Your task to perform on an android device: move a message to another label in the gmail app Image 0: 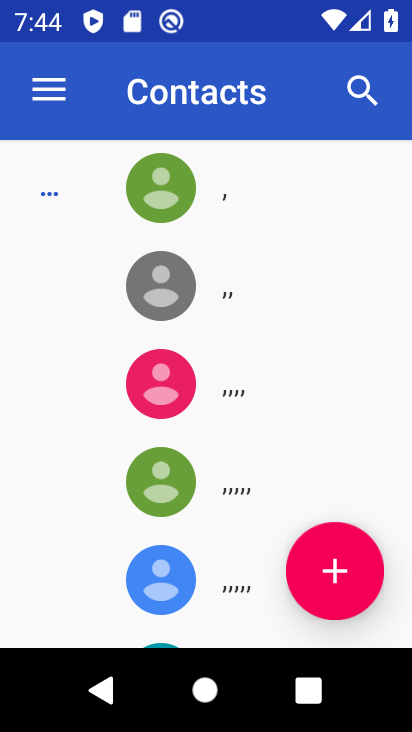
Step 0: press home button
Your task to perform on an android device: move a message to another label in the gmail app Image 1: 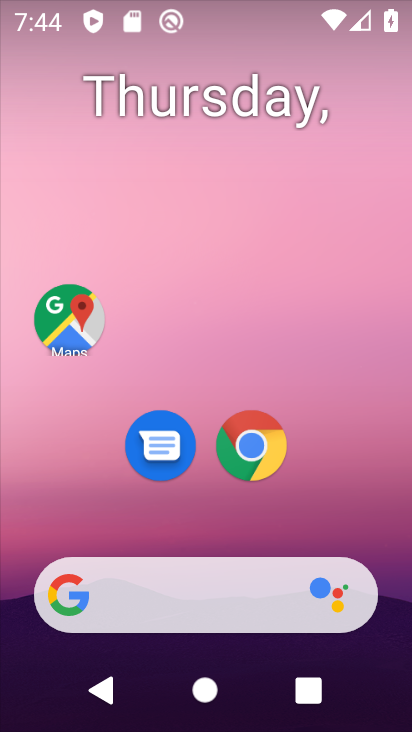
Step 1: drag from (335, 547) to (328, 3)
Your task to perform on an android device: move a message to another label in the gmail app Image 2: 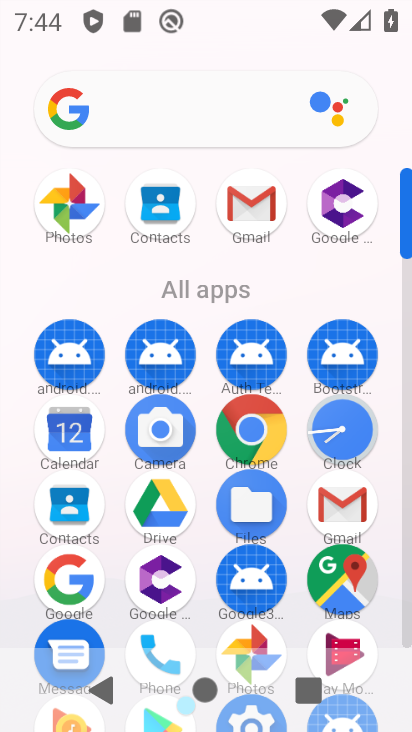
Step 2: click (249, 210)
Your task to perform on an android device: move a message to another label in the gmail app Image 3: 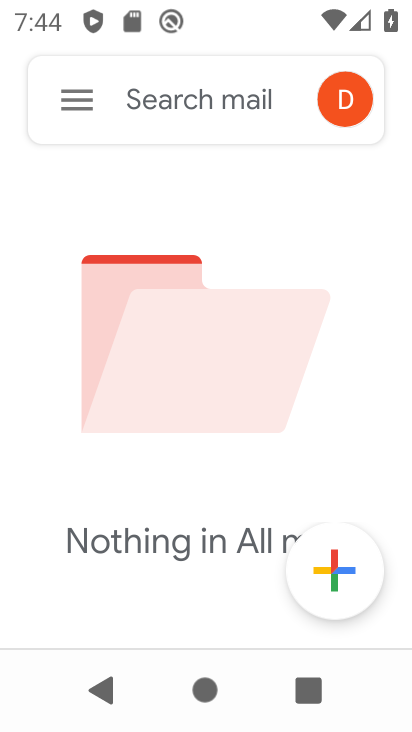
Step 3: click (71, 108)
Your task to perform on an android device: move a message to another label in the gmail app Image 4: 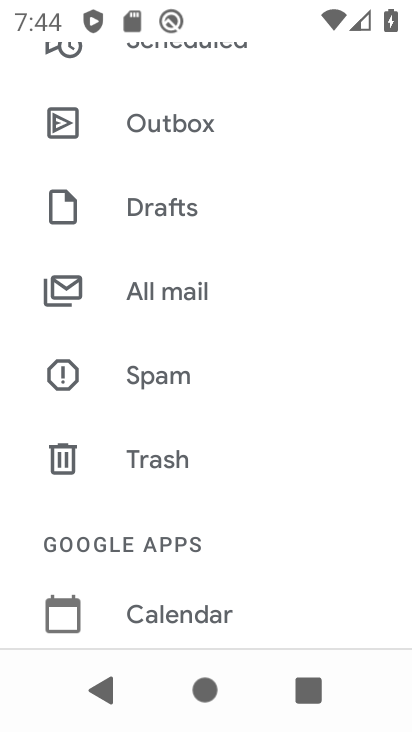
Step 4: click (128, 300)
Your task to perform on an android device: move a message to another label in the gmail app Image 5: 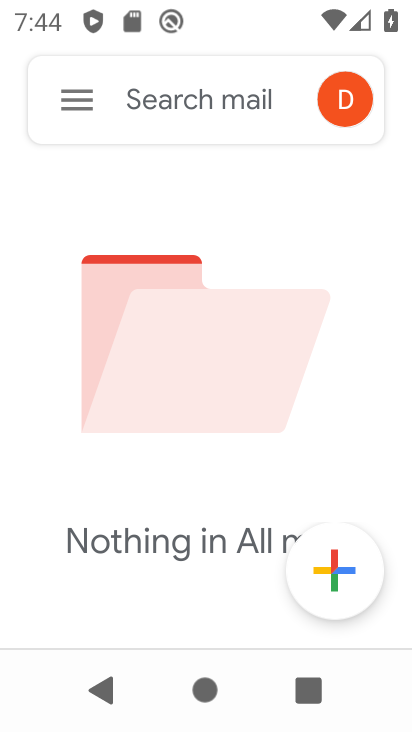
Step 5: task complete